Your task to perform on an android device: See recent photos Image 0: 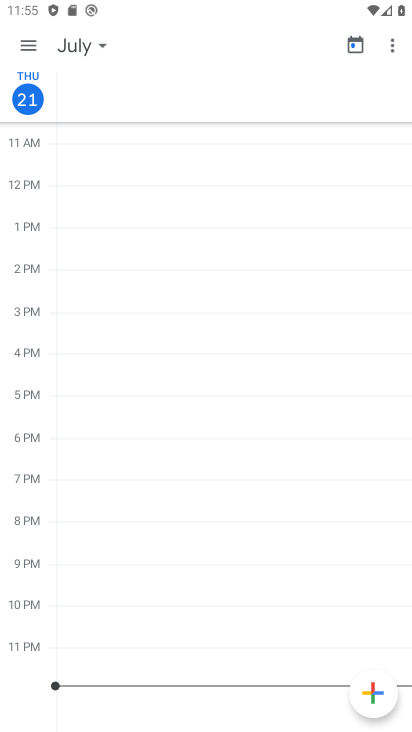
Step 0: press home button
Your task to perform on an android device: See recent photos Image 1: 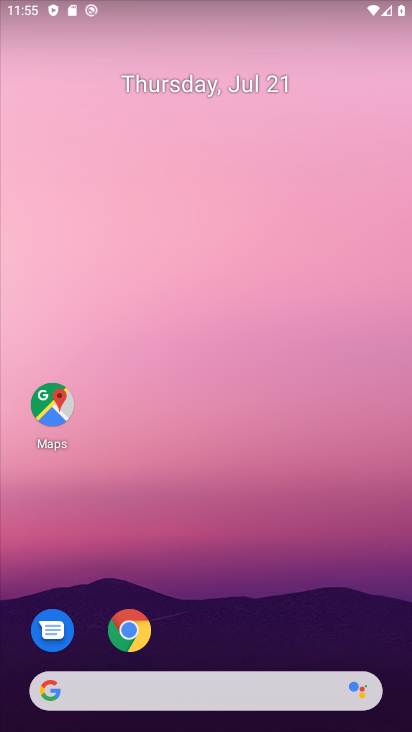
Step 1: drag from (192, 638) to (72, 164)
Your task to perform on an android device: See recent photos Image 2: 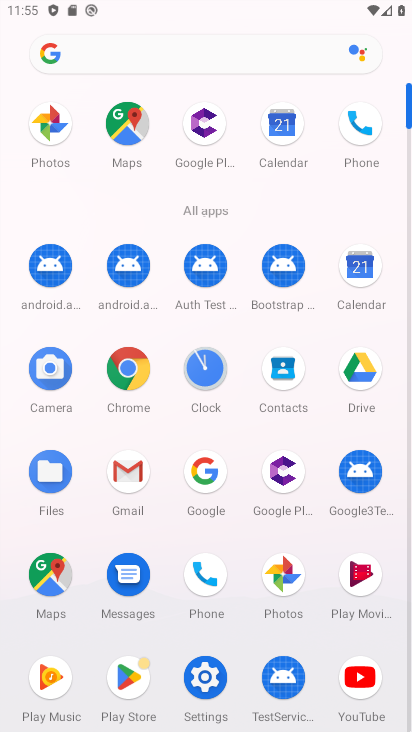
Step 2: click (53, 134)
Your task to perform on an android device: See recent photos Image 3: 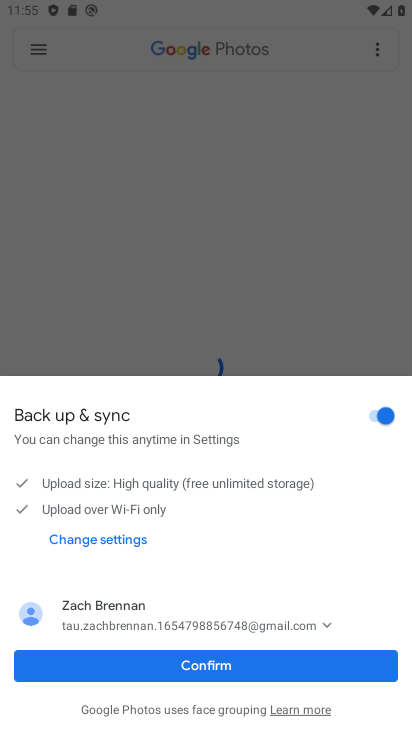
Step 3: click (152, 662)
Your task to perform on an android device: See recent photos Image 4: 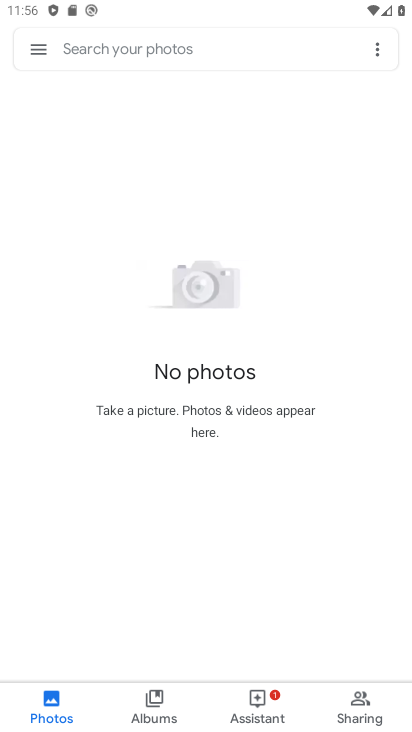
Step 4: click (206, 339)
Your task to perform on an android device: See recent photos Image 5: 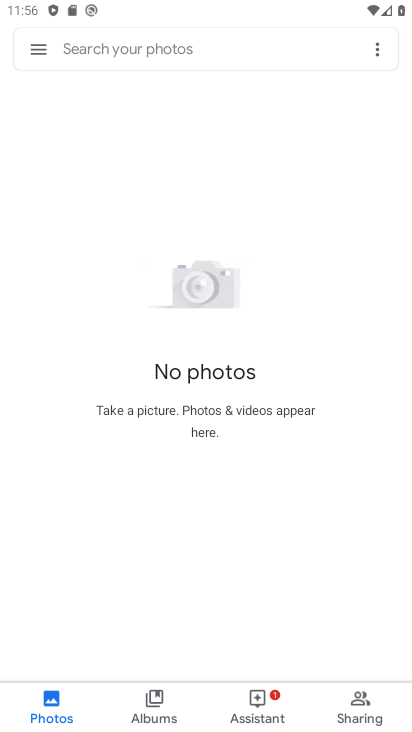
Step 5: task complete